Your task to perform on an android device: all mails in gmail Image 0: 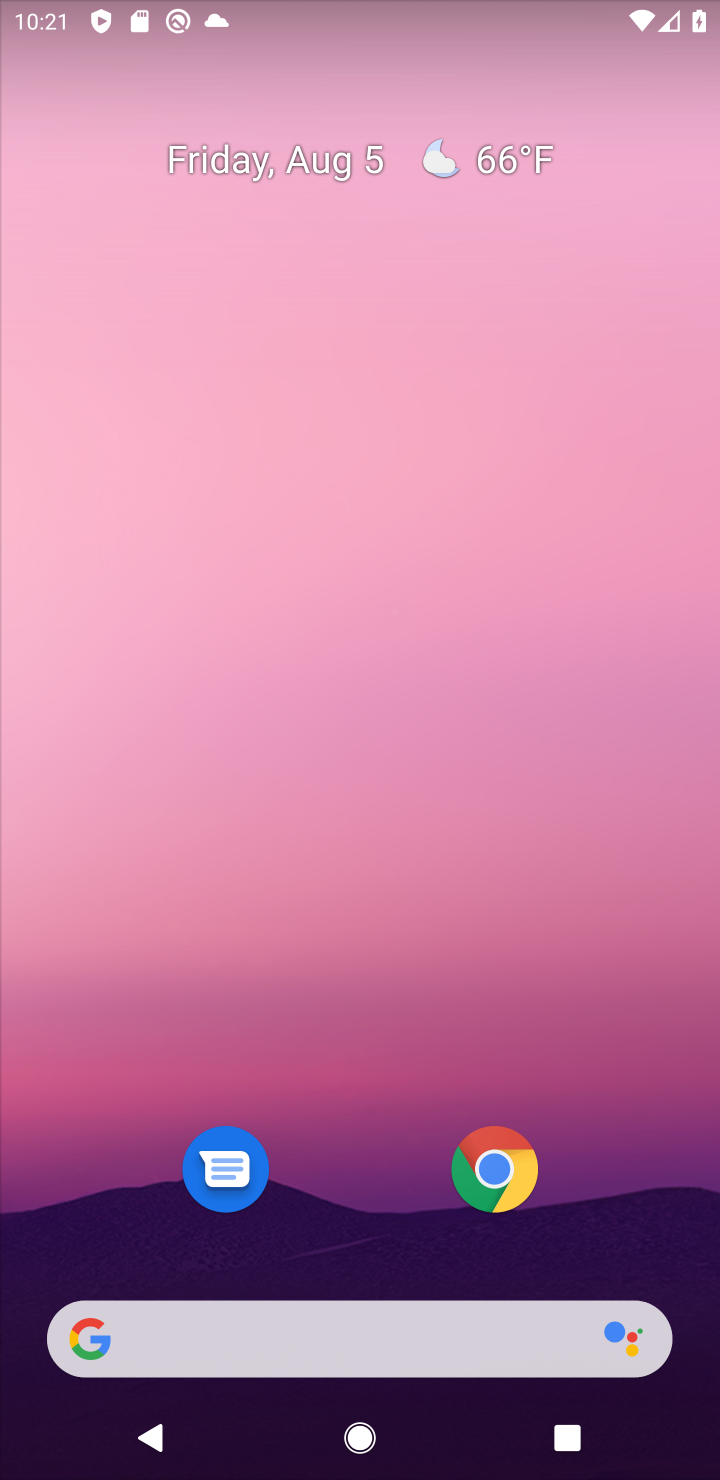
Step 0: drag from (617, 850) to (641, 119)
Your task to perform on an android device: all mails in gmail Image 1: 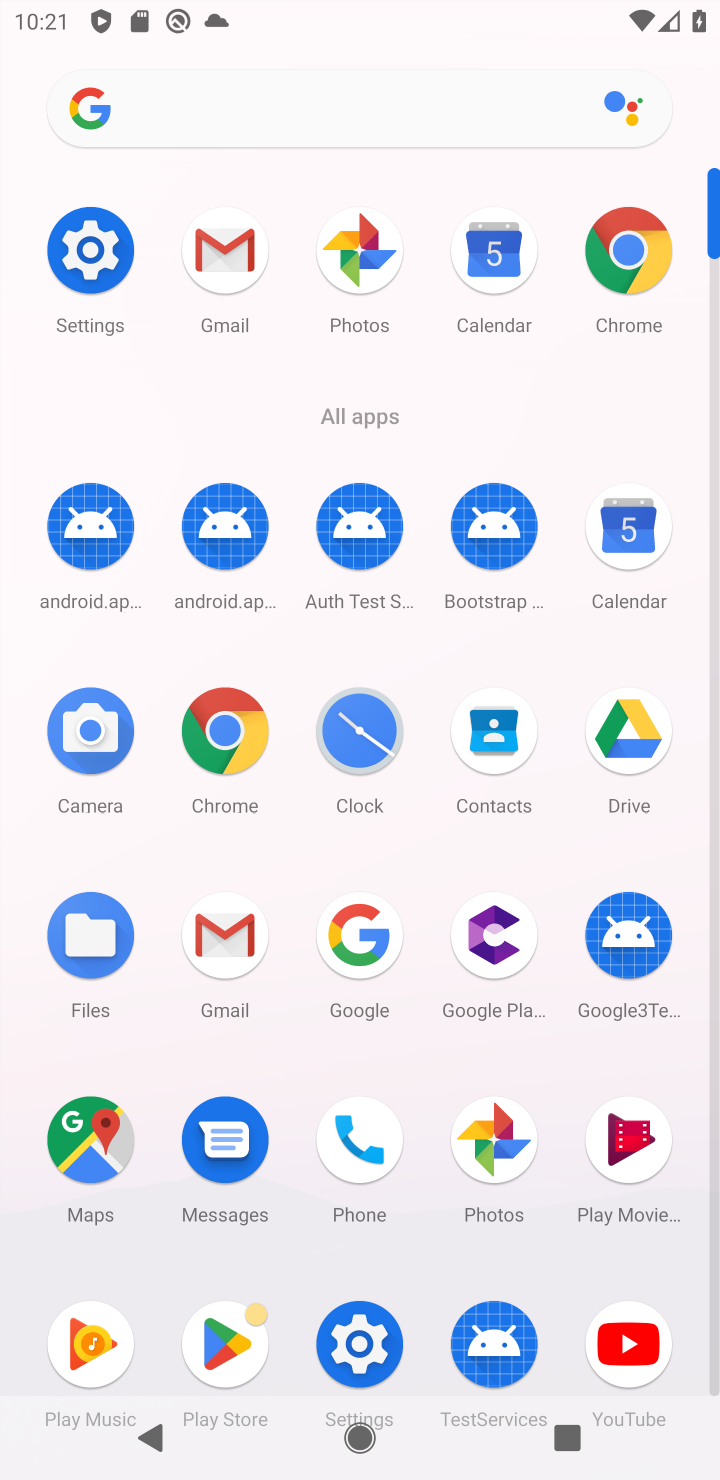
Step 1: click (222, 941)
Your task to perform on an android device: all mails in gmail Image 2: 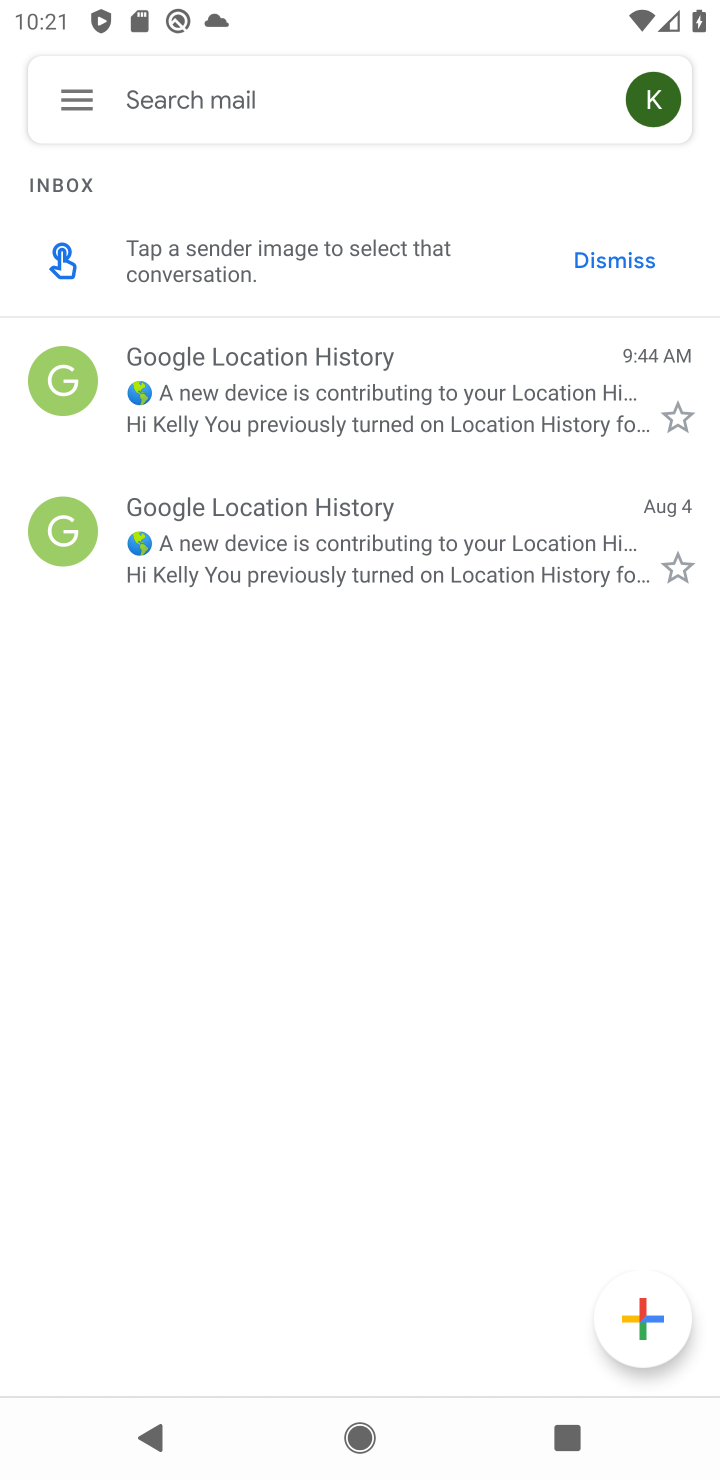
Step 2: click (67, 97)
Your task to perform on an android device: all mails in gmail Image 3: 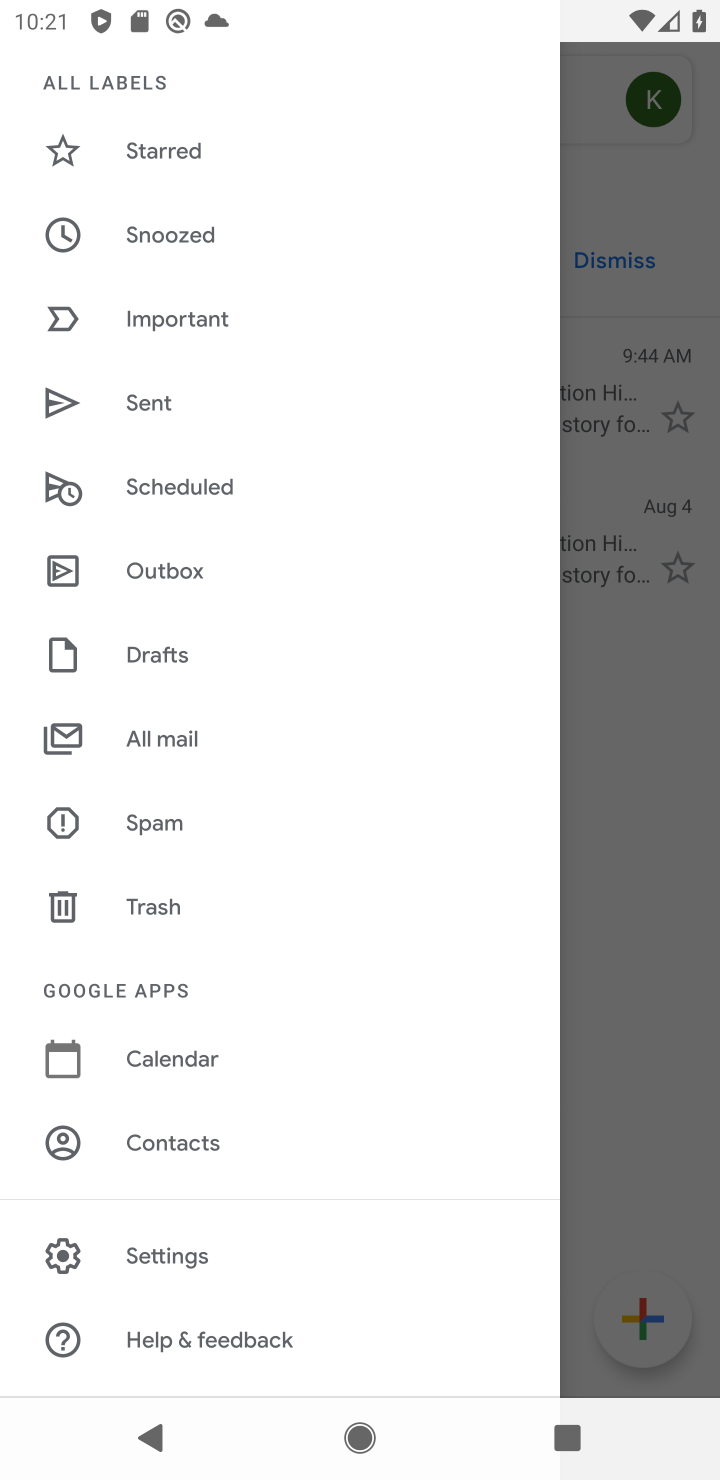
Step 3: click (177, 730)
Your task to perform on an android device: all mails in gmail Image 4: 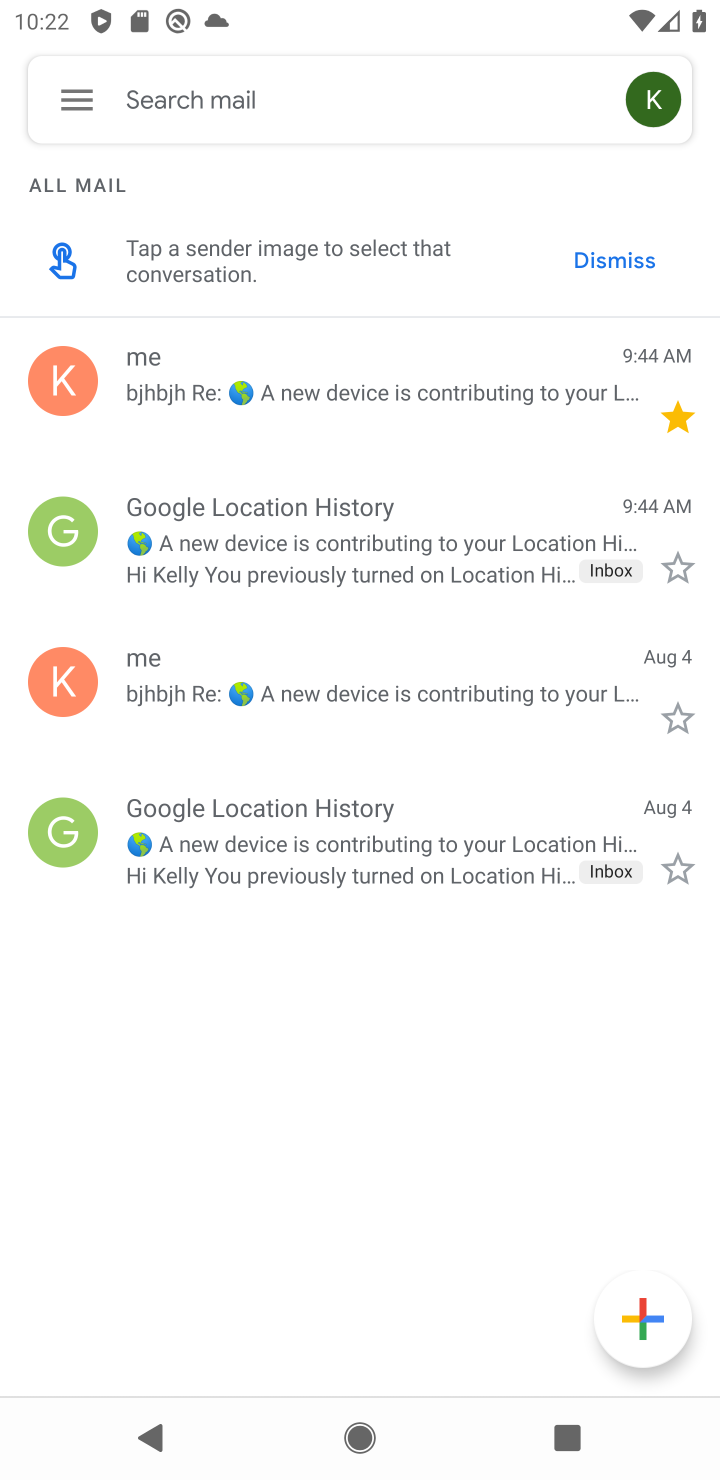
Step 4: task complete